Your task to perform on an android device: add a contact Image 0: 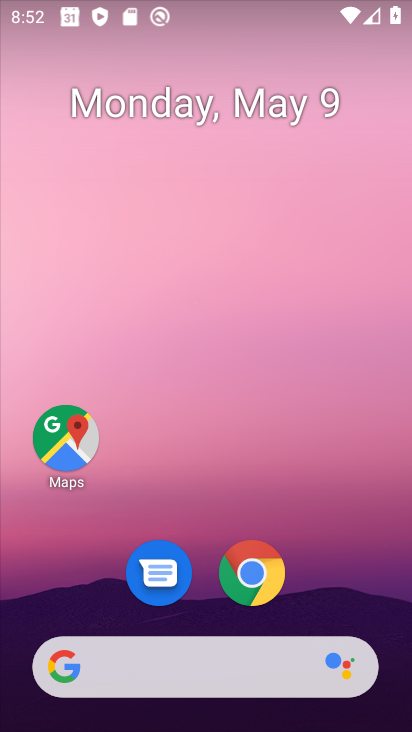
Step 0: drag from (321, 612) to (286, 127)
Your task to perform on an android device: add a contact Image 1: 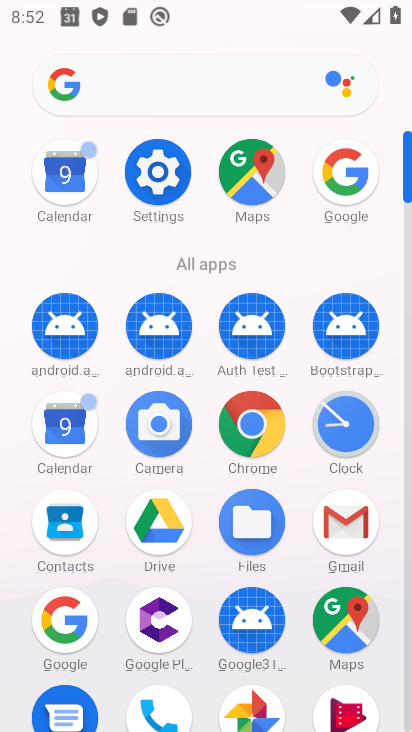
Step 1: click (59, 534)
Your task to perform on an android device: add a contact Image 2: 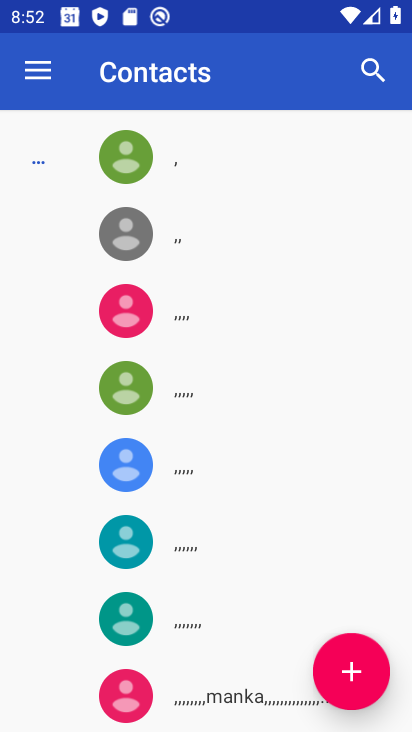
Step 2: click (350, 674)
Your task to perform on an android device: add a contact Image 3: 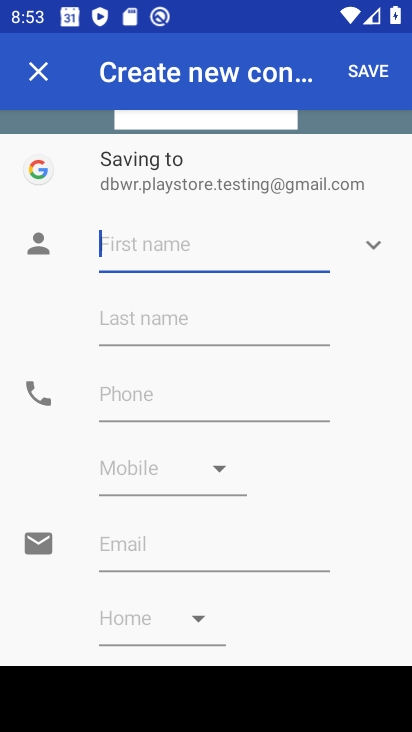
Step 3: type "adgjlkhfs"
Your task to perform on an android device: add a contact Image 4: 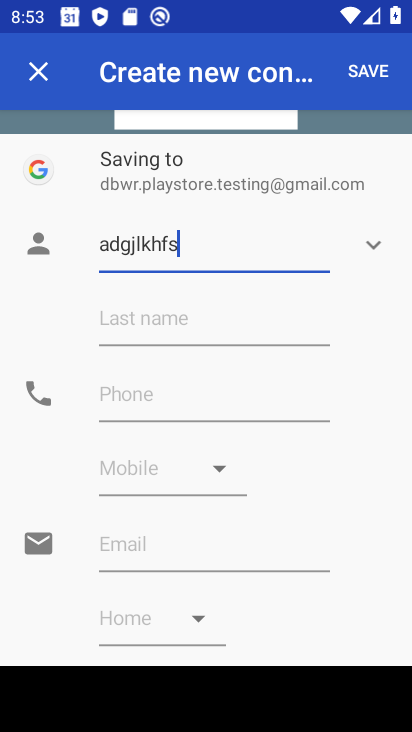
Step 4: click (122, 395)
Your task to perform on an android device: add a contact Image 5: 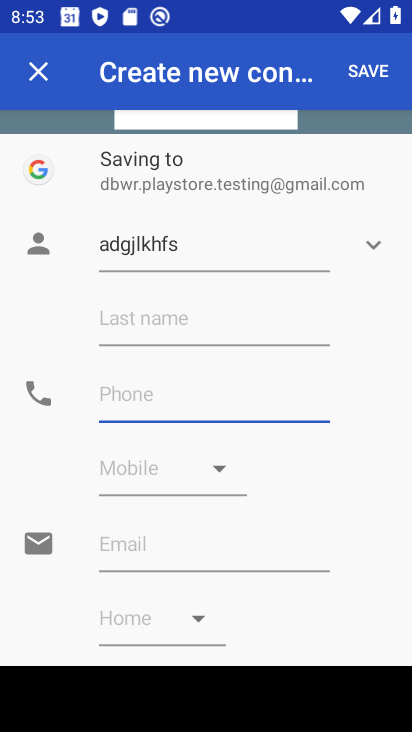
Step 5: type "6754321890"
Your task to perform on an android device: add a contact Image 6: 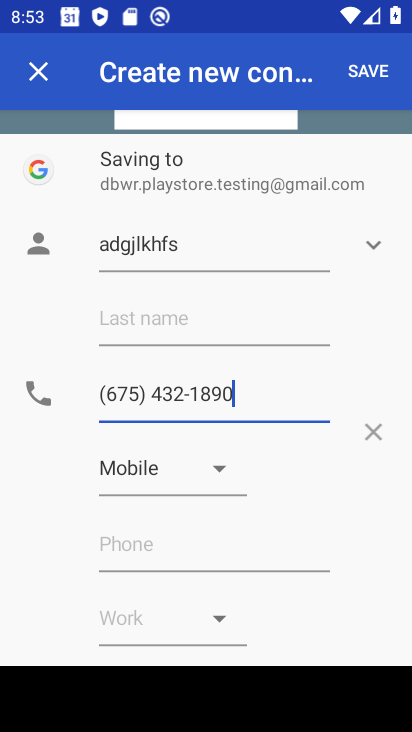
Step 6: click (359, 83)
Your task to perform on an android device: add a contact Image 7: 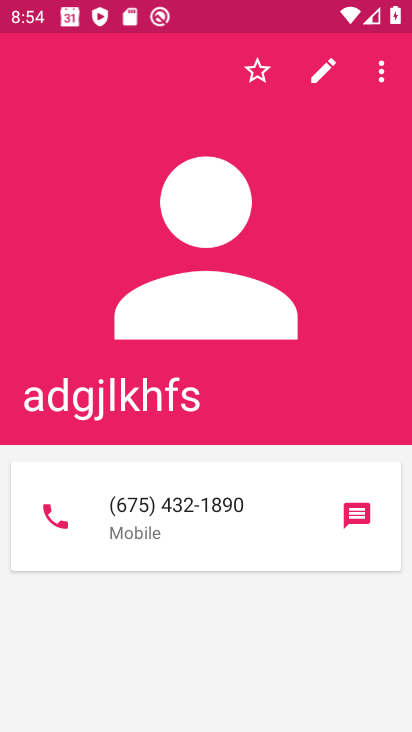
Step 7: task complete